Your task to perform on an android device: Go to ESPN.com Image 0: 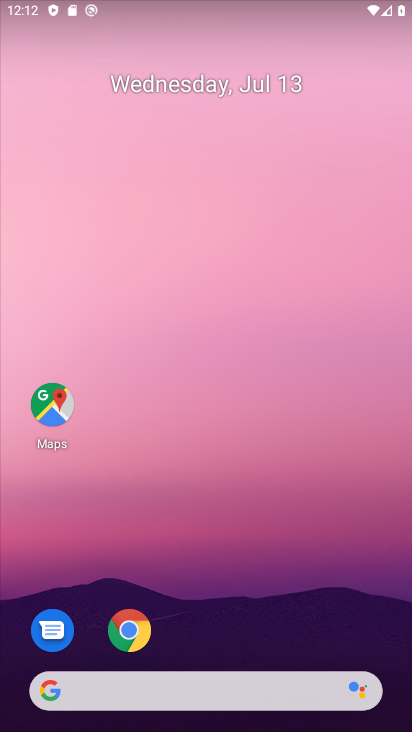
Step 0: click (134, 633)
Your task to perform on an android device: Go to ESPN.com Image 1: 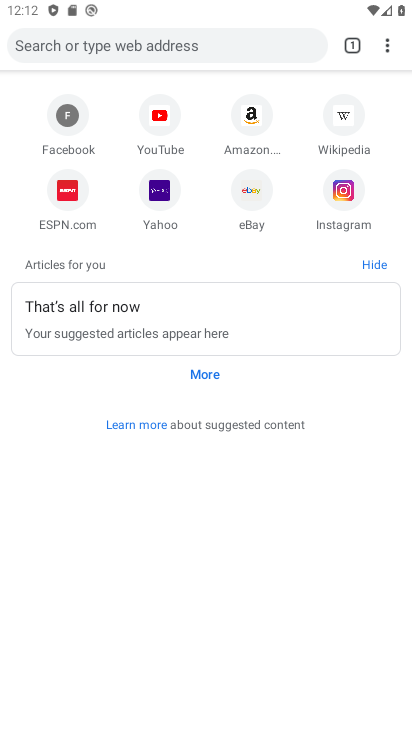
Step 1: click (60, 184)
Your task to perform on an android device: Go to ESPN.com Image 2: 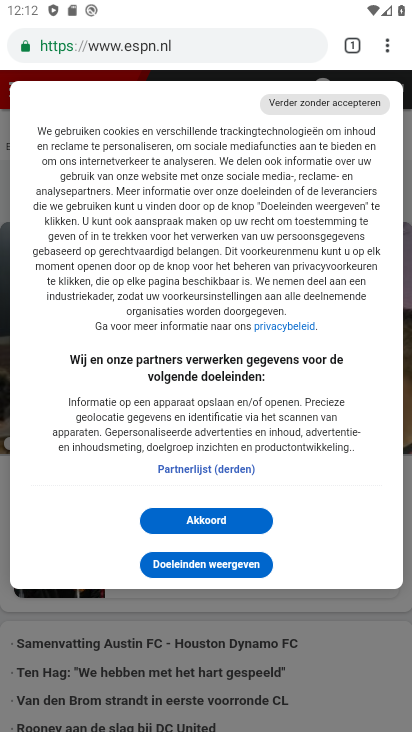
Step 2: click (209, 517)
Your task to perform on an android device: Go to ESPN.com Image 3: 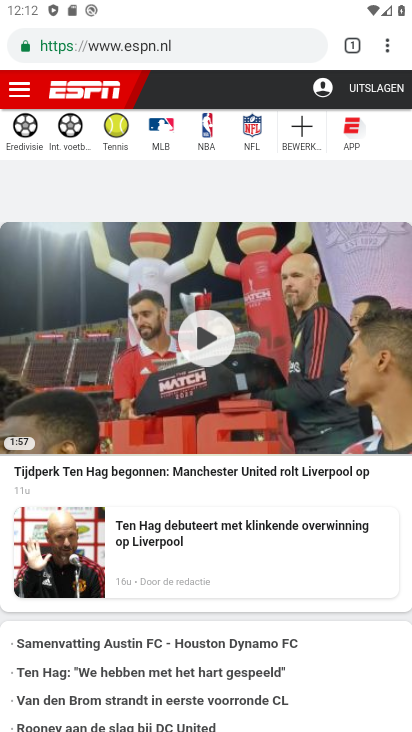
Step 3: task complete